Your task to perform on an android device: Open settings Image 0: 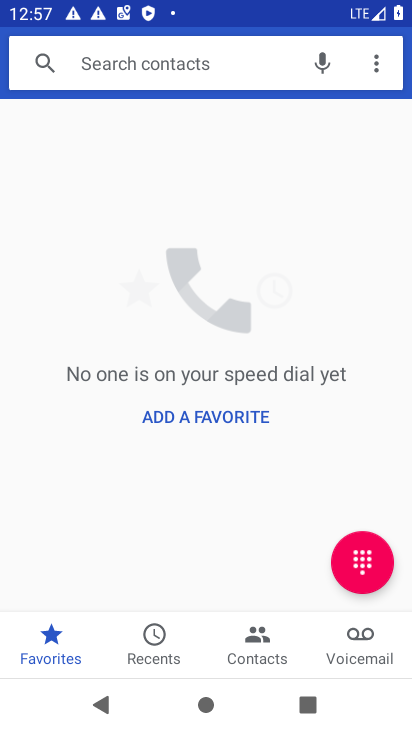
Step 0: press home button
Your task to perform on an android device: Open settings Image 1: 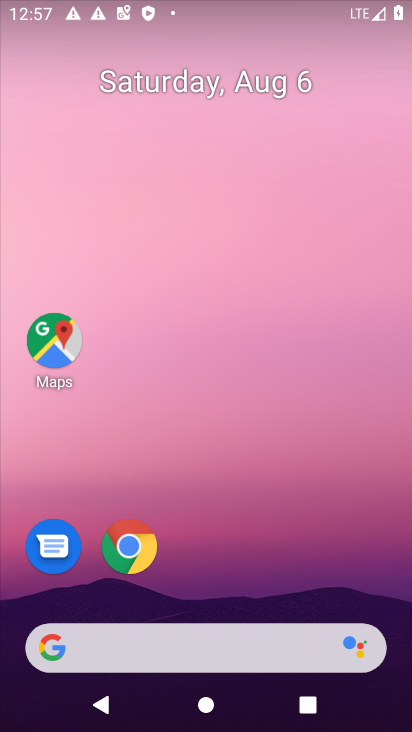
Step 1: drag from (363, 403) to (372, 97)
Your task to perform on an android device: Open settings Image 2: 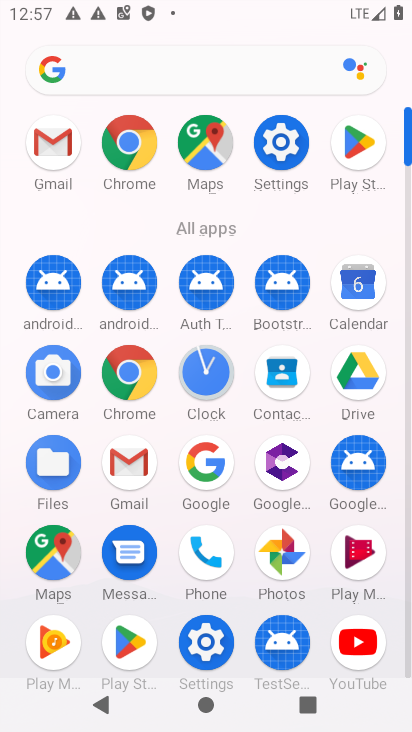
Step 2: click (206, 644)
Your task to perform on an android device: Open settings Image 3: 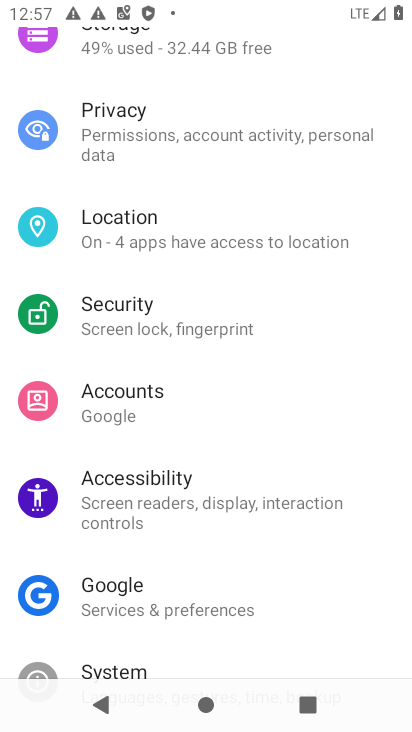
Step 3: task complete